Your task to perform on an android device: change the clock display to show seconds Image 0: 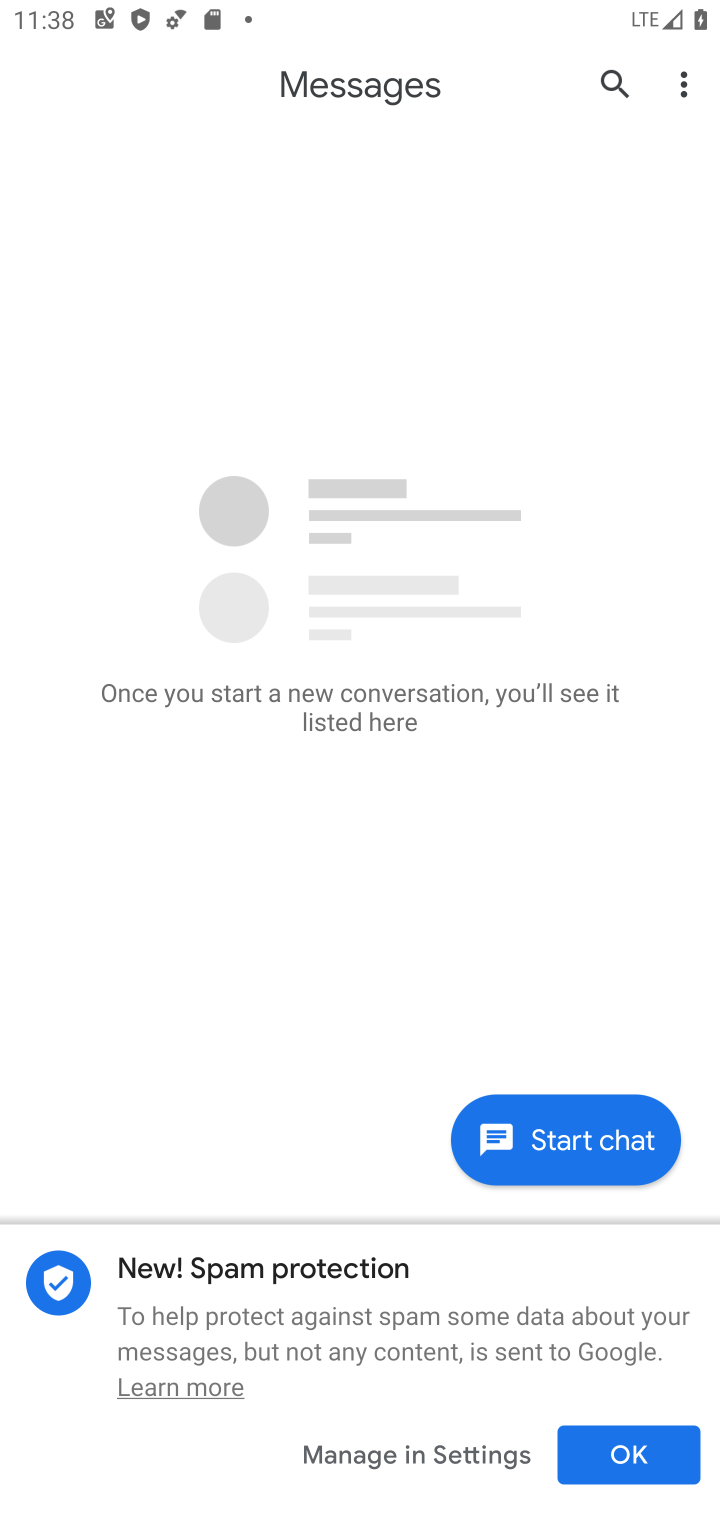
Step 0: press back button
Your task to perform on an android device: change the clock display to show seconds Image 1: 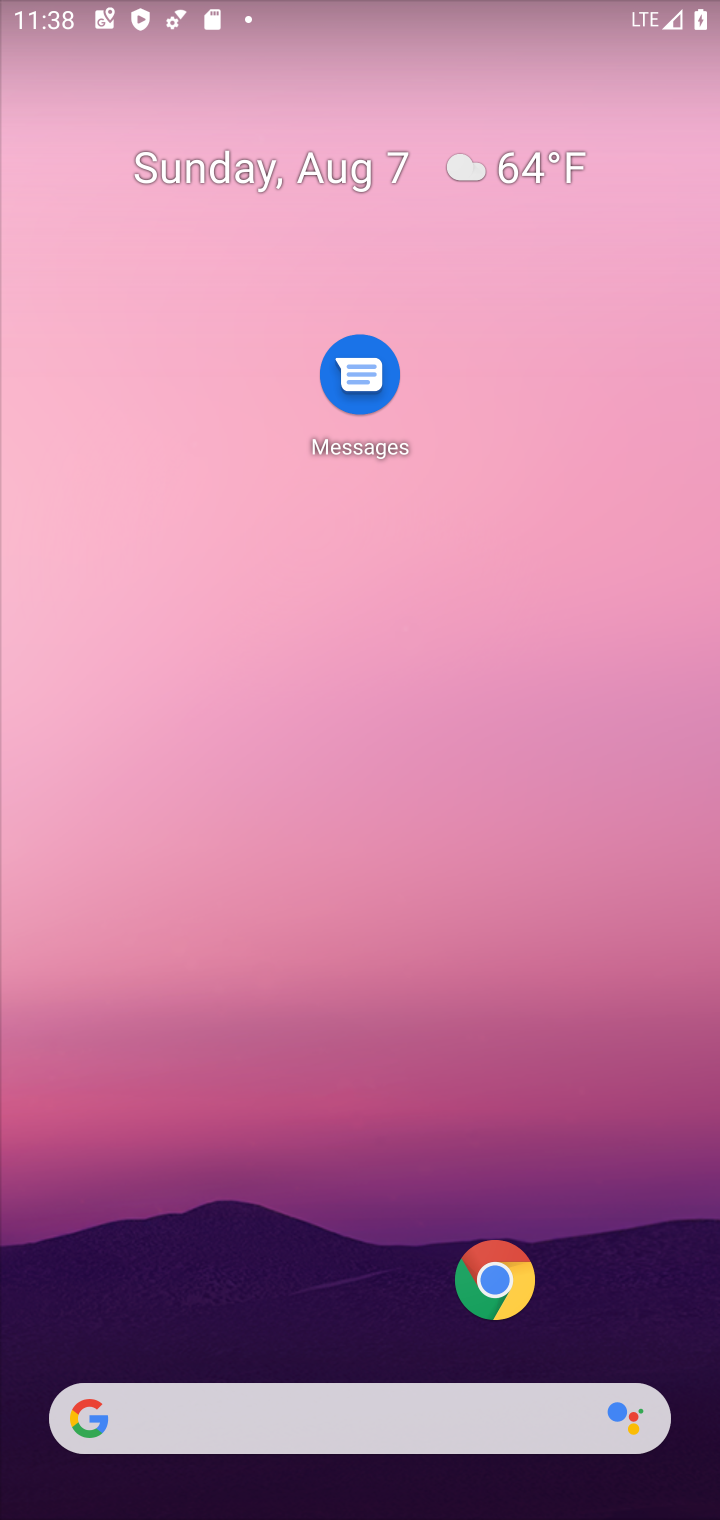
Step 1: drag from (197, 1200) to (273, 304)
Your task to perform on an android device: change the clock display to show seconds Image 2: 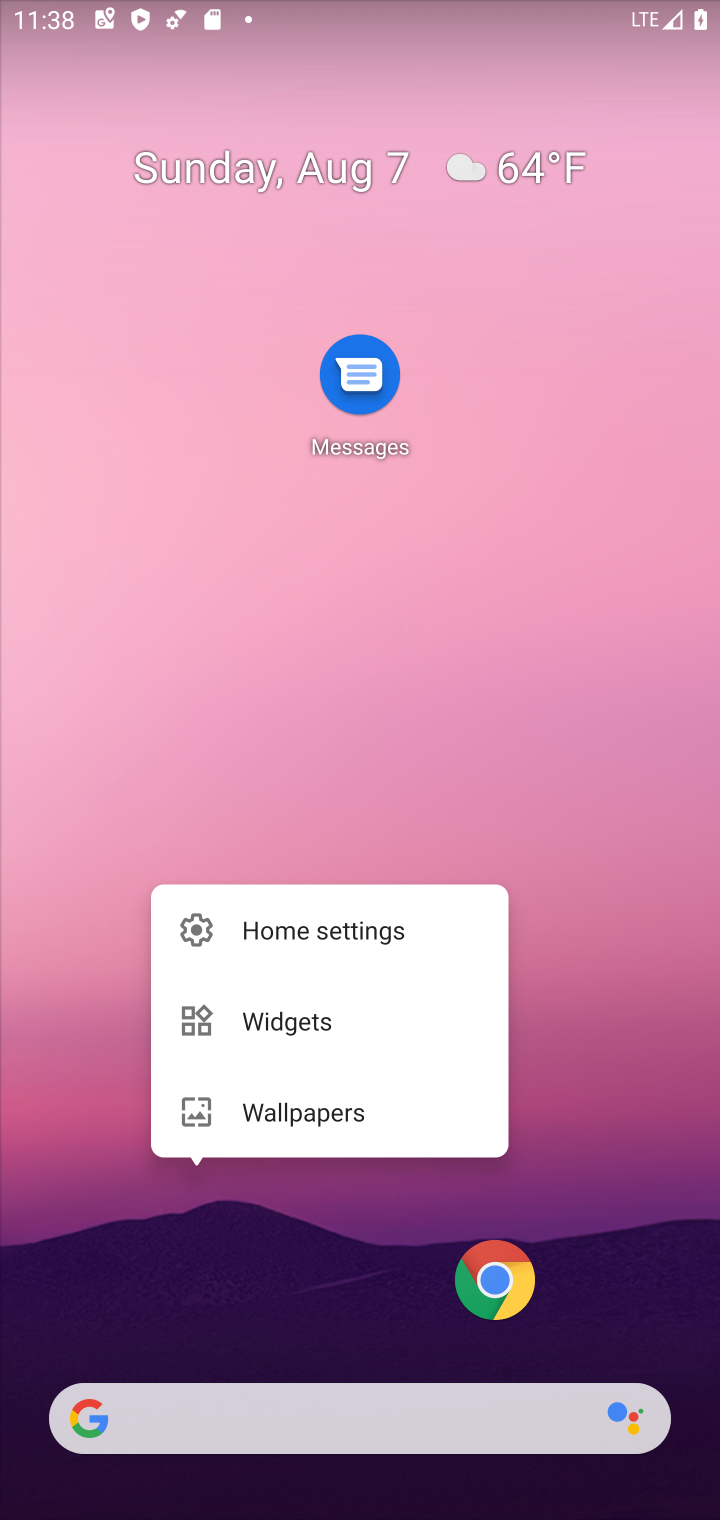
Step 2: drag from (227, 1274) to (462, 29)
Your task to perform on an android device: change the clock display to show seconds Image 3: 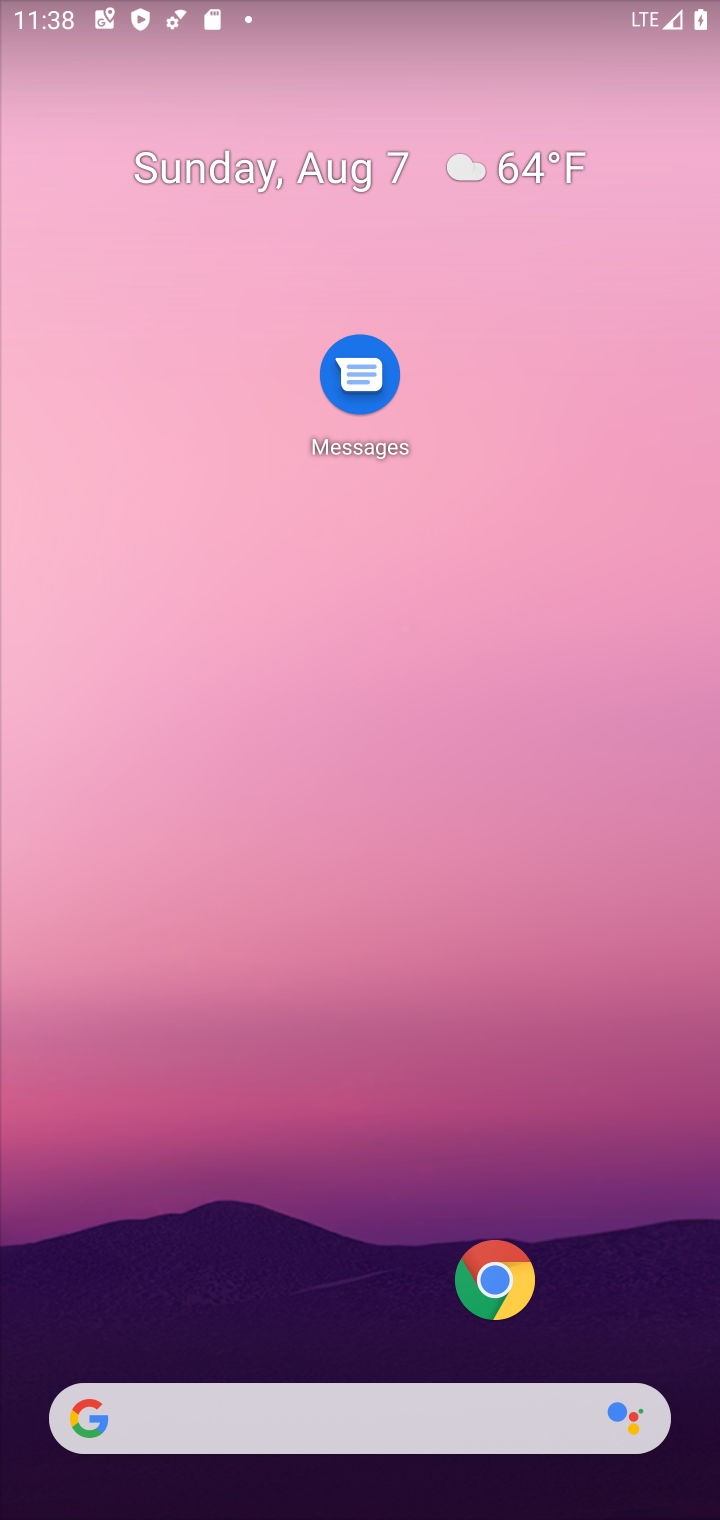
Step 3: drag from (266, 1137) to (529, 37)
Your task to perform on an android device: change the clock display to show seconds Image 4: 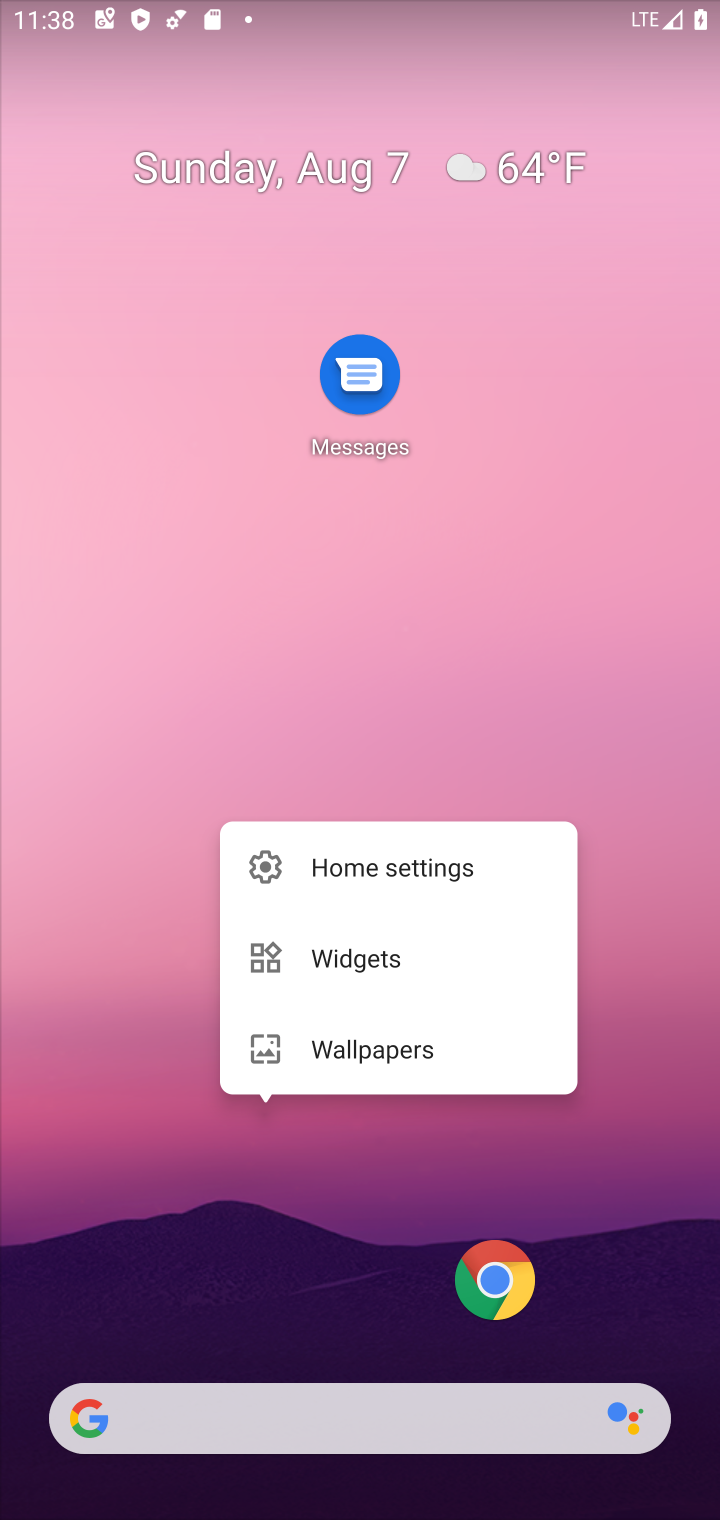
Step 4: click (186, 1257)
Your task to perform on an android device: change the clock display to show seconds Image 5: 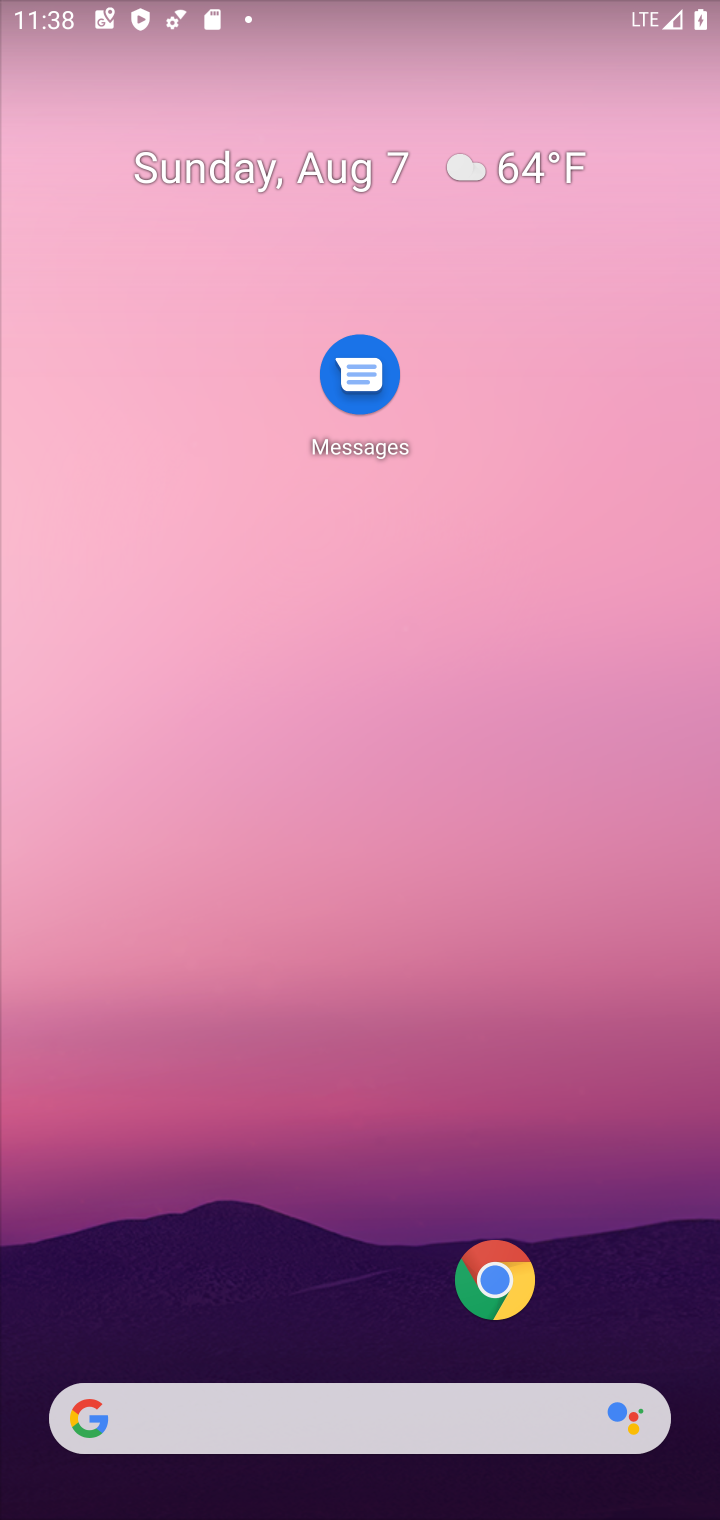
Step 5: drag from (467, 332) to (530, 77)
Your task to perform on an android device: change the clock display to show seconds Image 6: 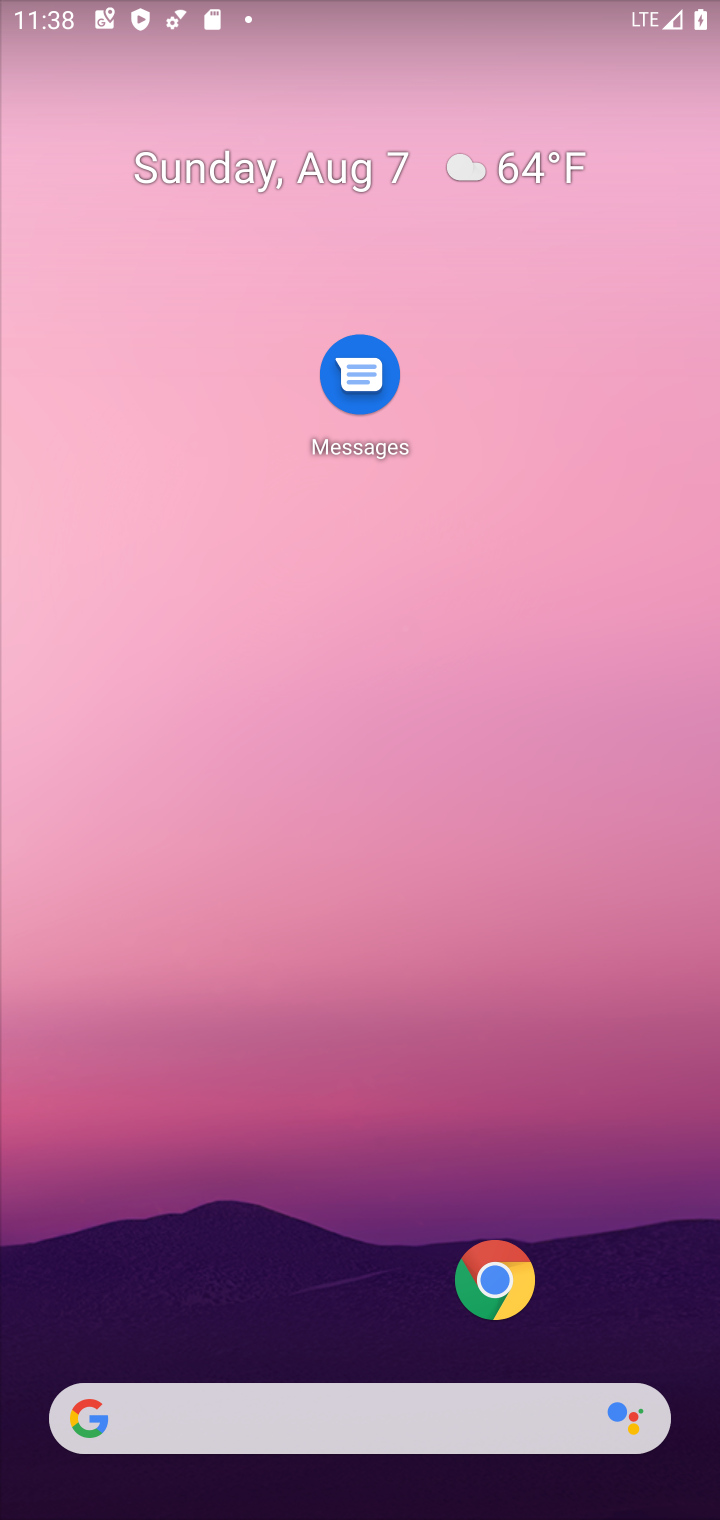
Step 6: drag from (375, 1139) to (536, 9)
Your task to perform on an android device: change the clock display to show seconds Image 7: 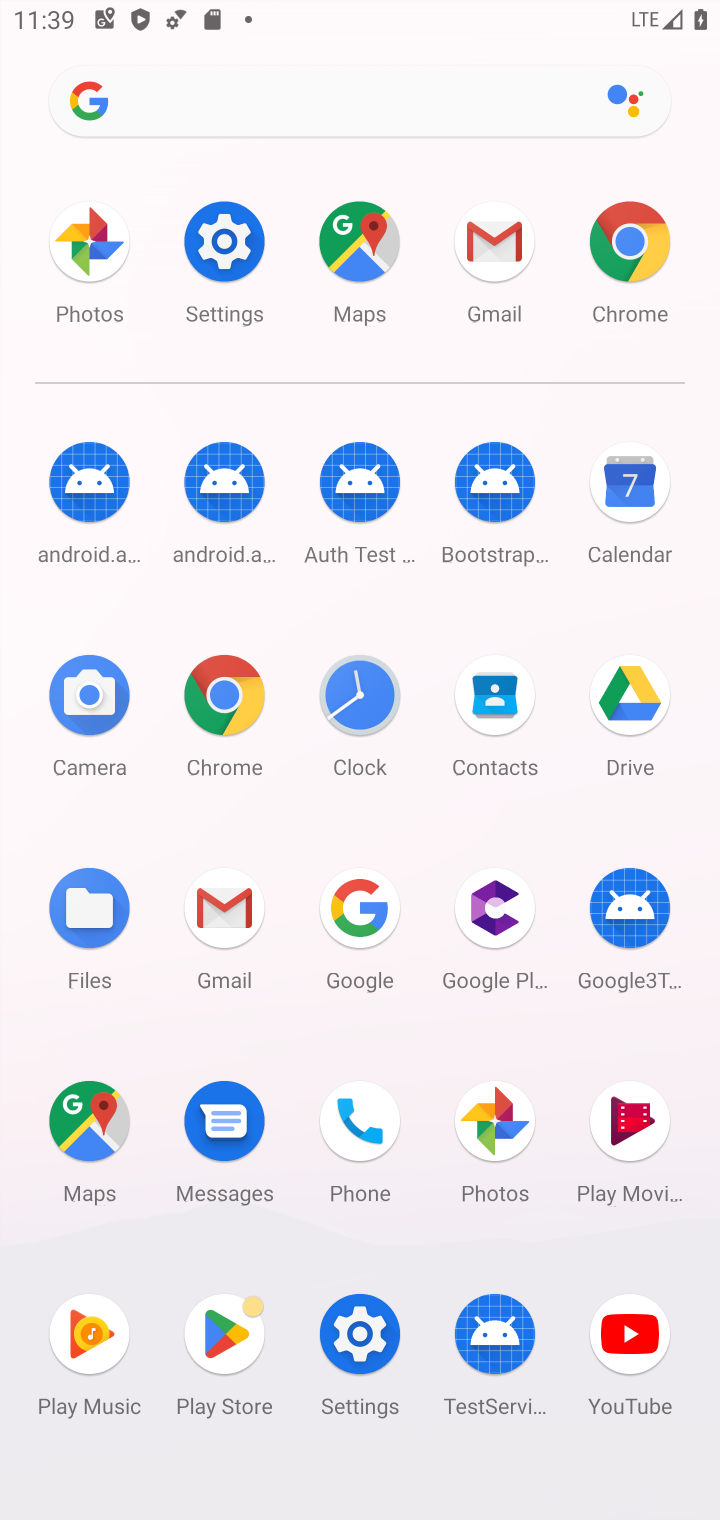
Step 7: click (369, 697)
Your task to perform on an android device: change the clock display to show seconds Image 8: 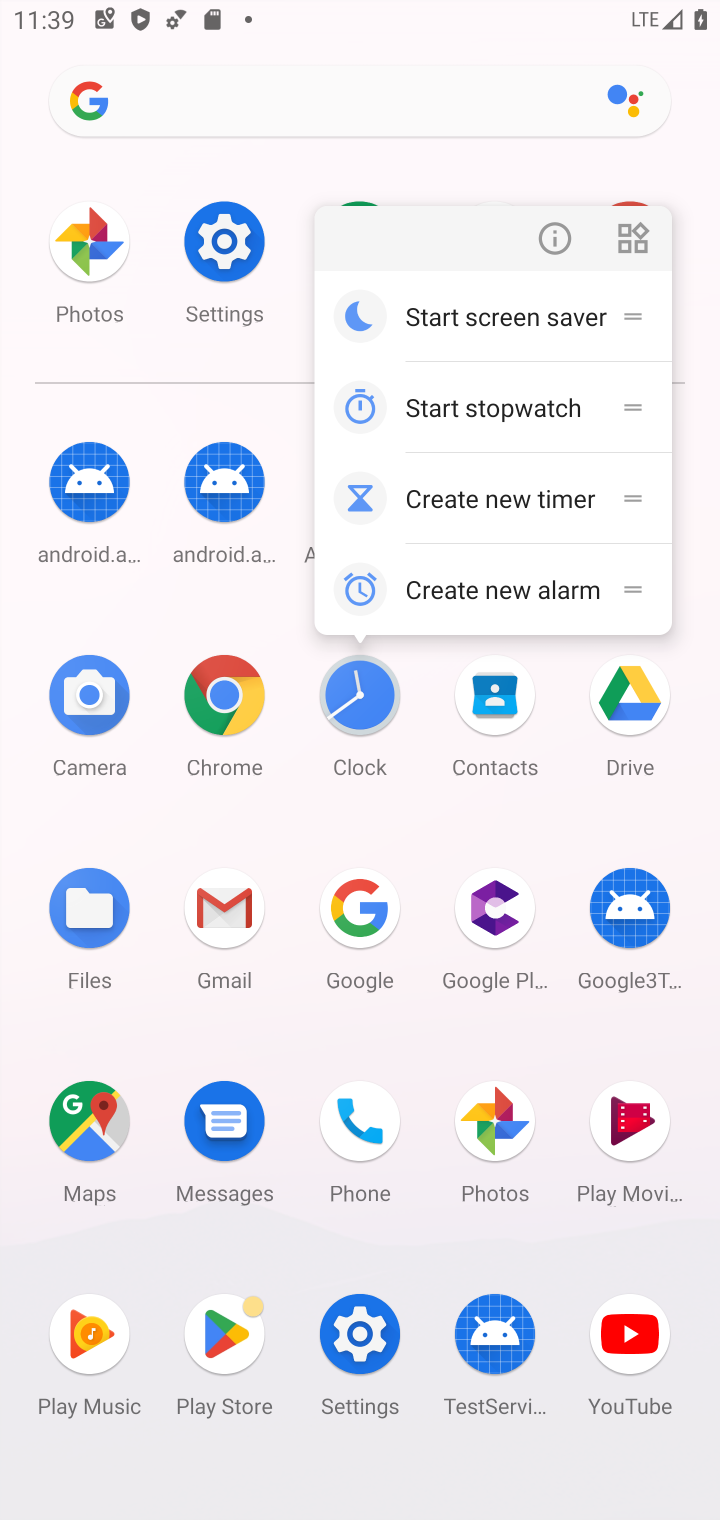
Step 8: click (367, 695)
Your task to perform on an android device: change the clock display to show seconds Image 9: 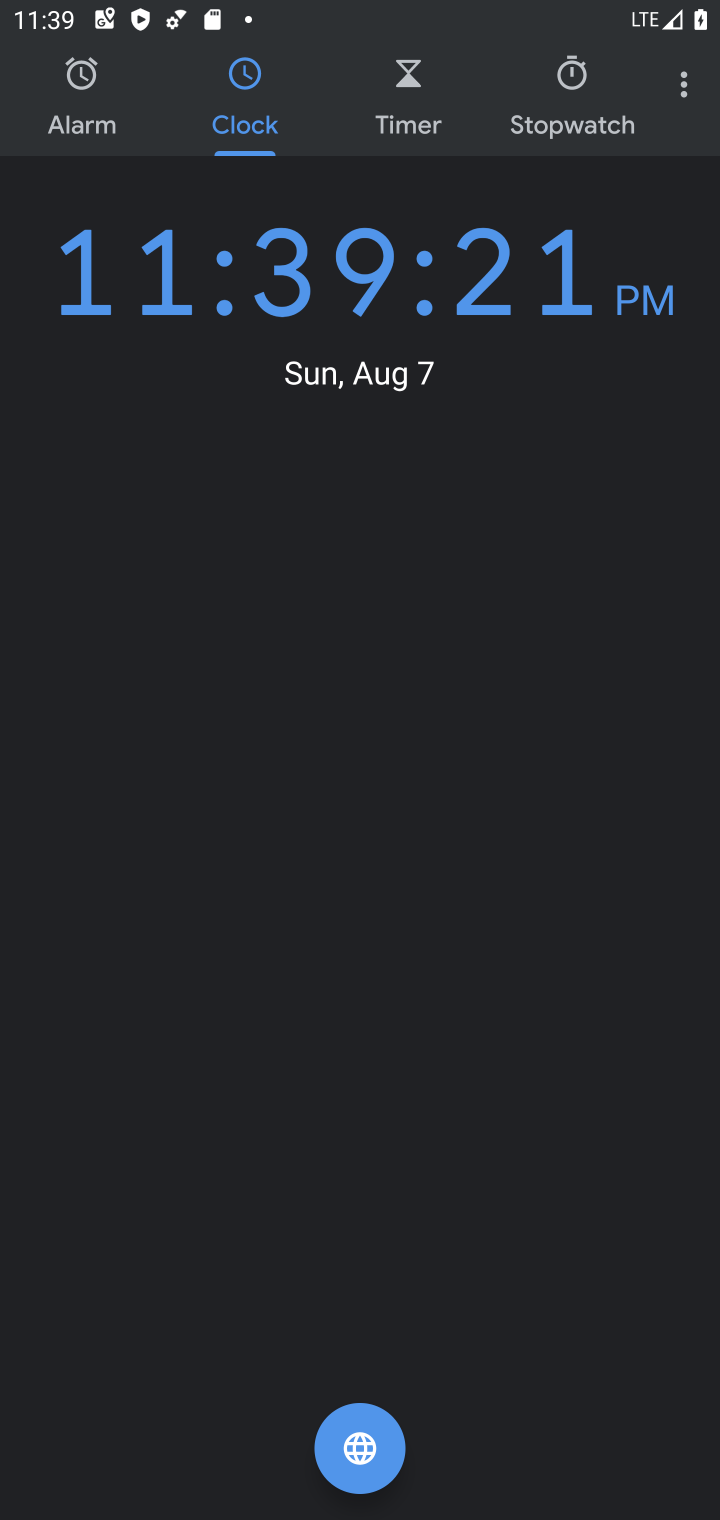
Step 9: click (688, 86)
Your task to perform on an android device: change the clock display to show seconds Image 10: 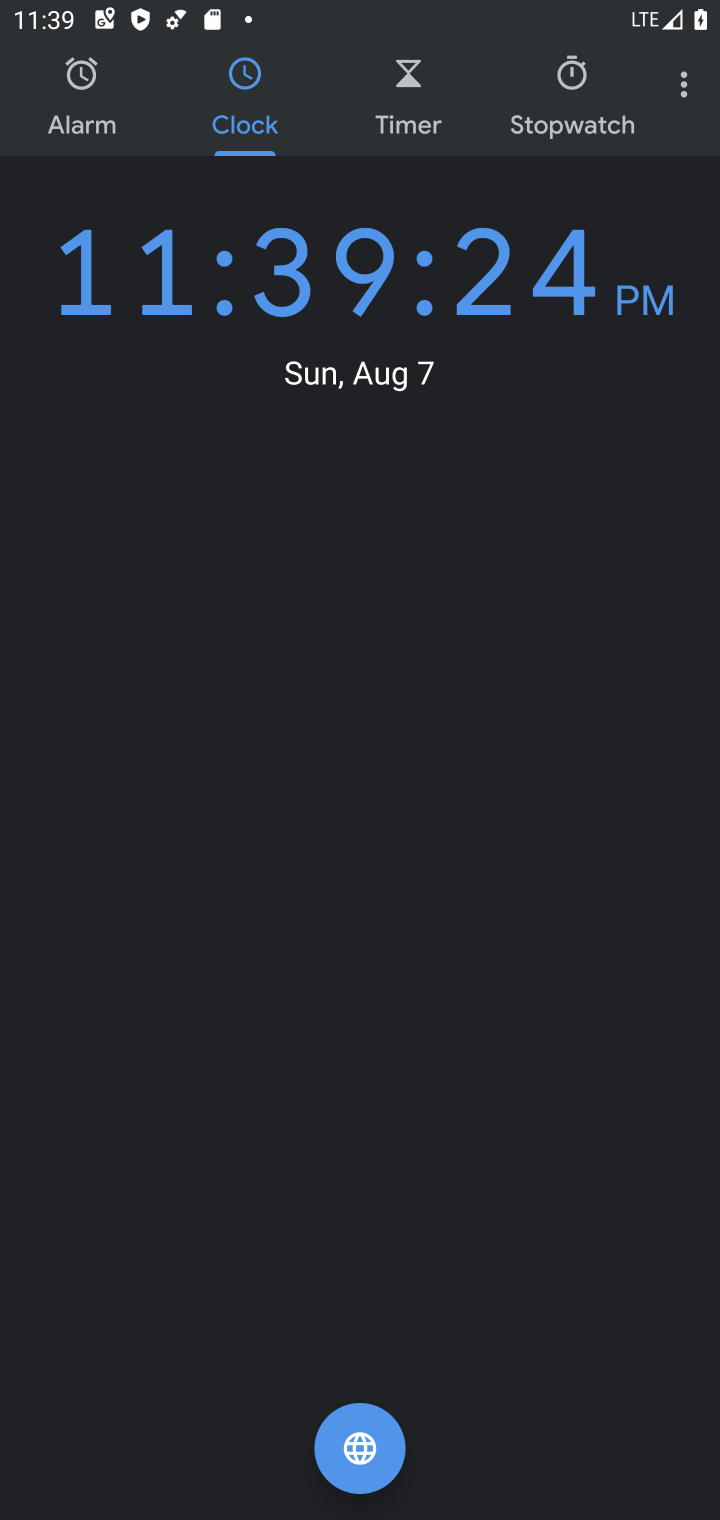
Step 10: click (682, 81)
Your task to perform on an android device: change the clock display to show seconds Image 11: 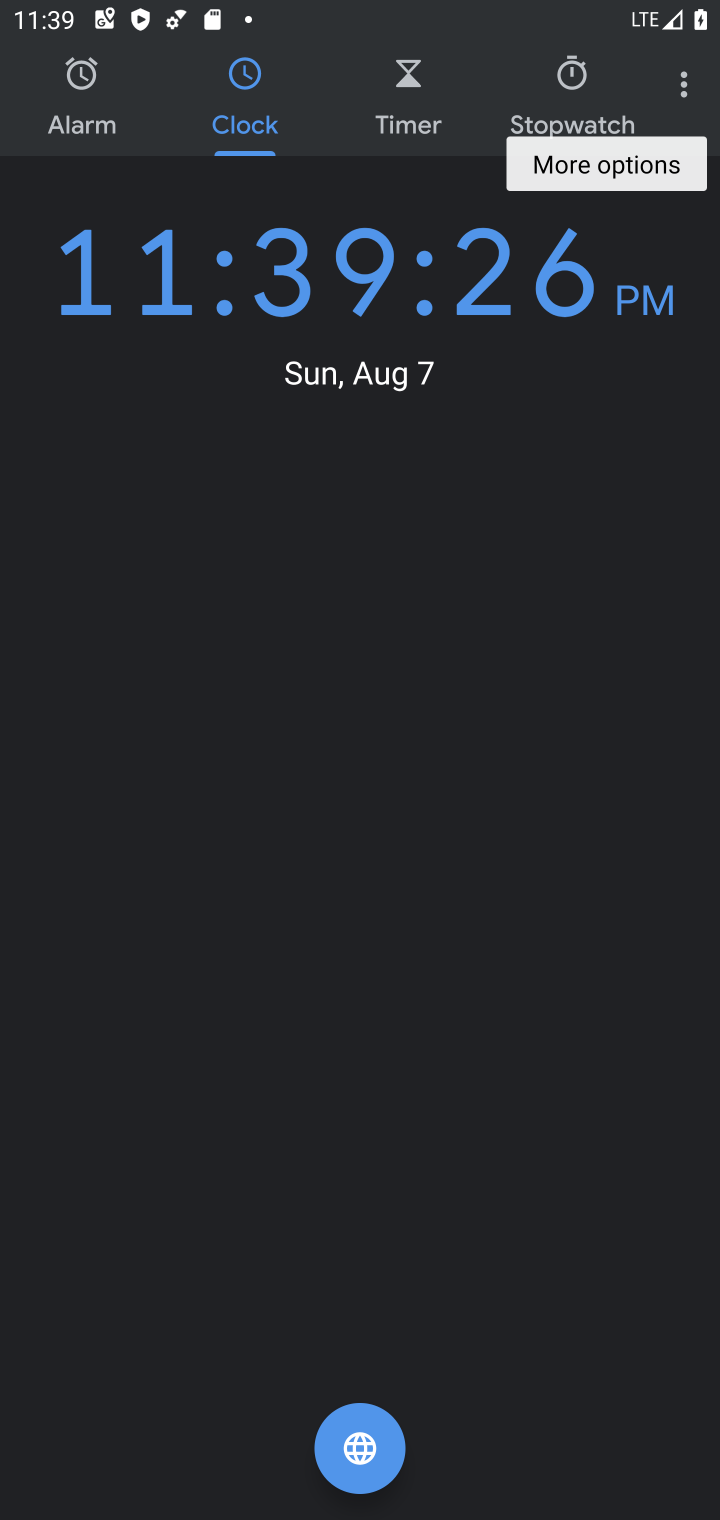
Step 11: click (697, 69)
Your task to perform on an android device: change the clock display to show seconds Image 12: 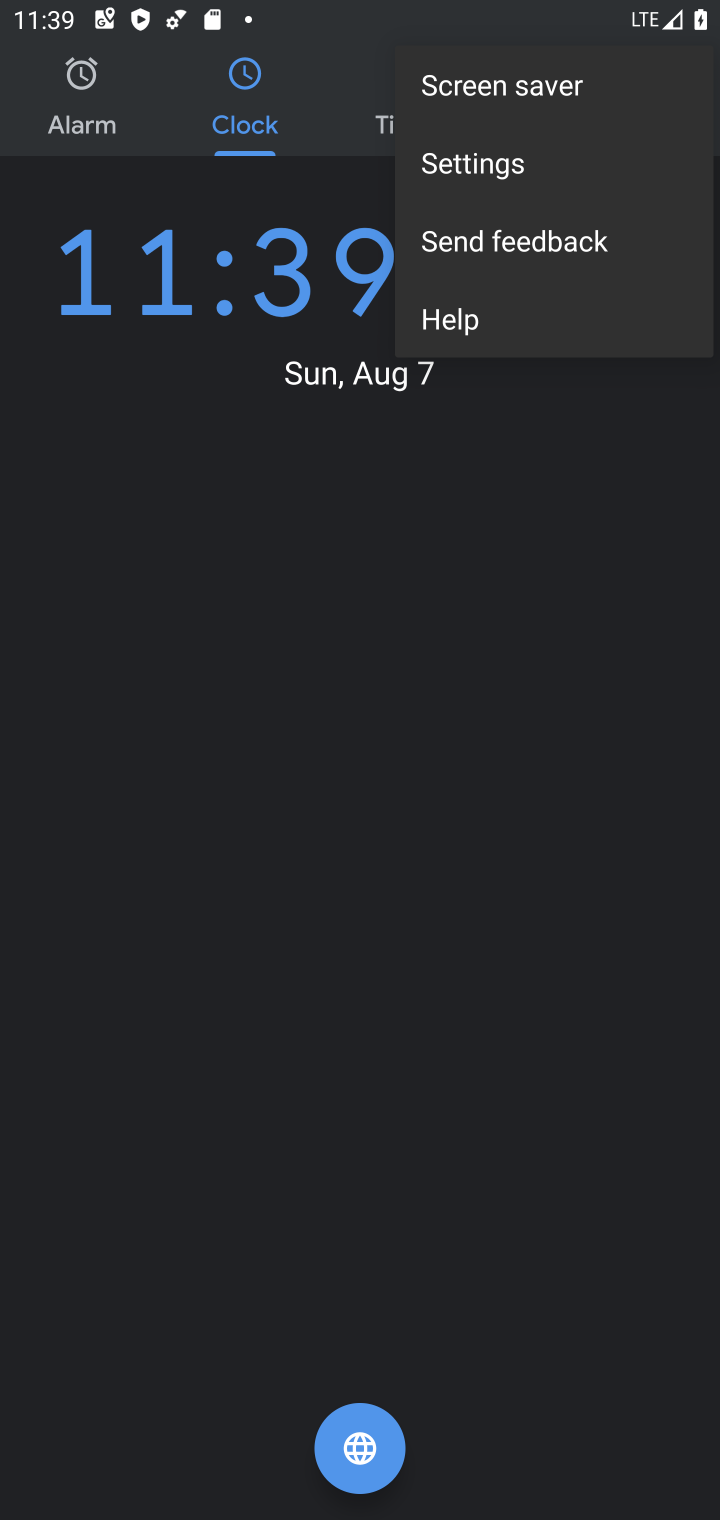
Step 12: click (503, 176)
Your task to perform on an android device: change the clock display to show seconds Image 13: 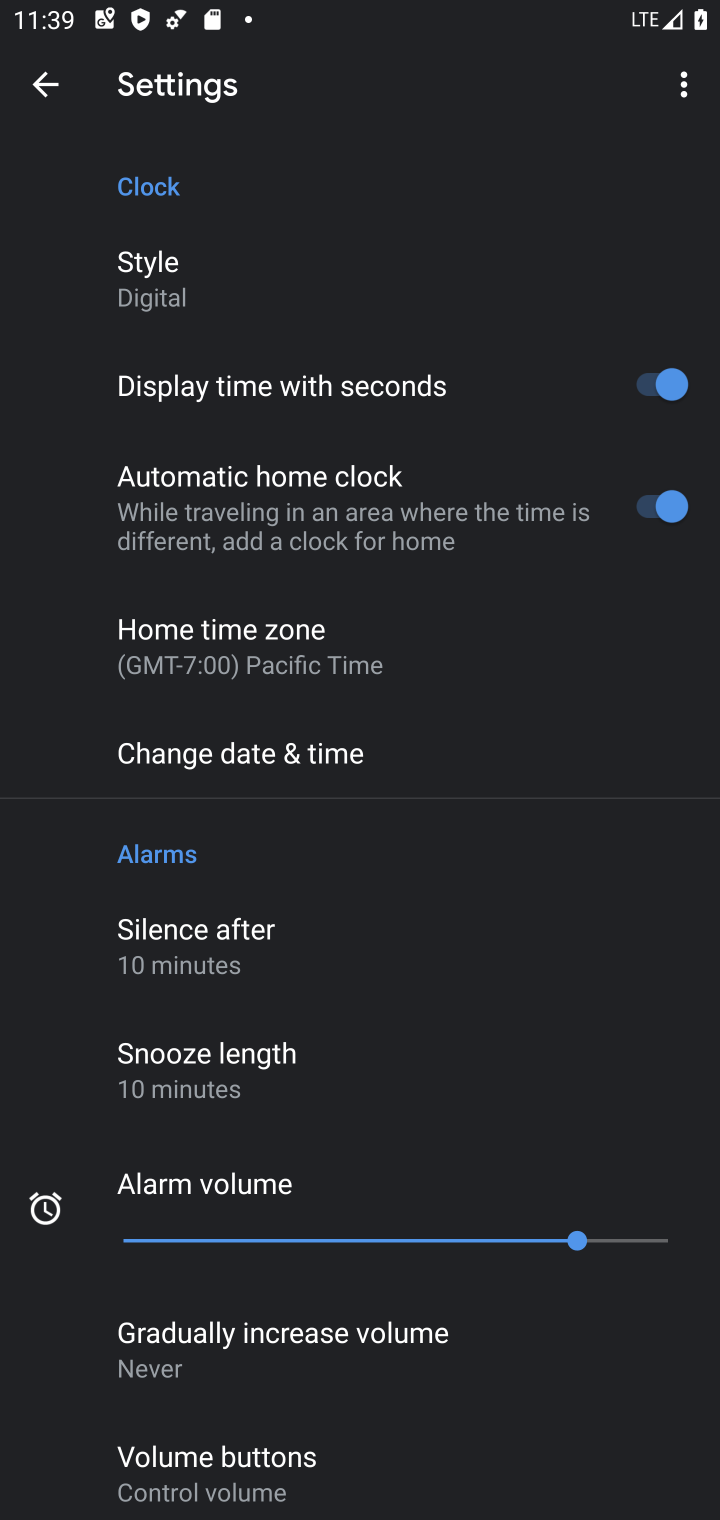
Step 13: drag from (245, 1285) to (435, 1108)
Your task to perform on an android device: change the clock display to show seconds Image 14: 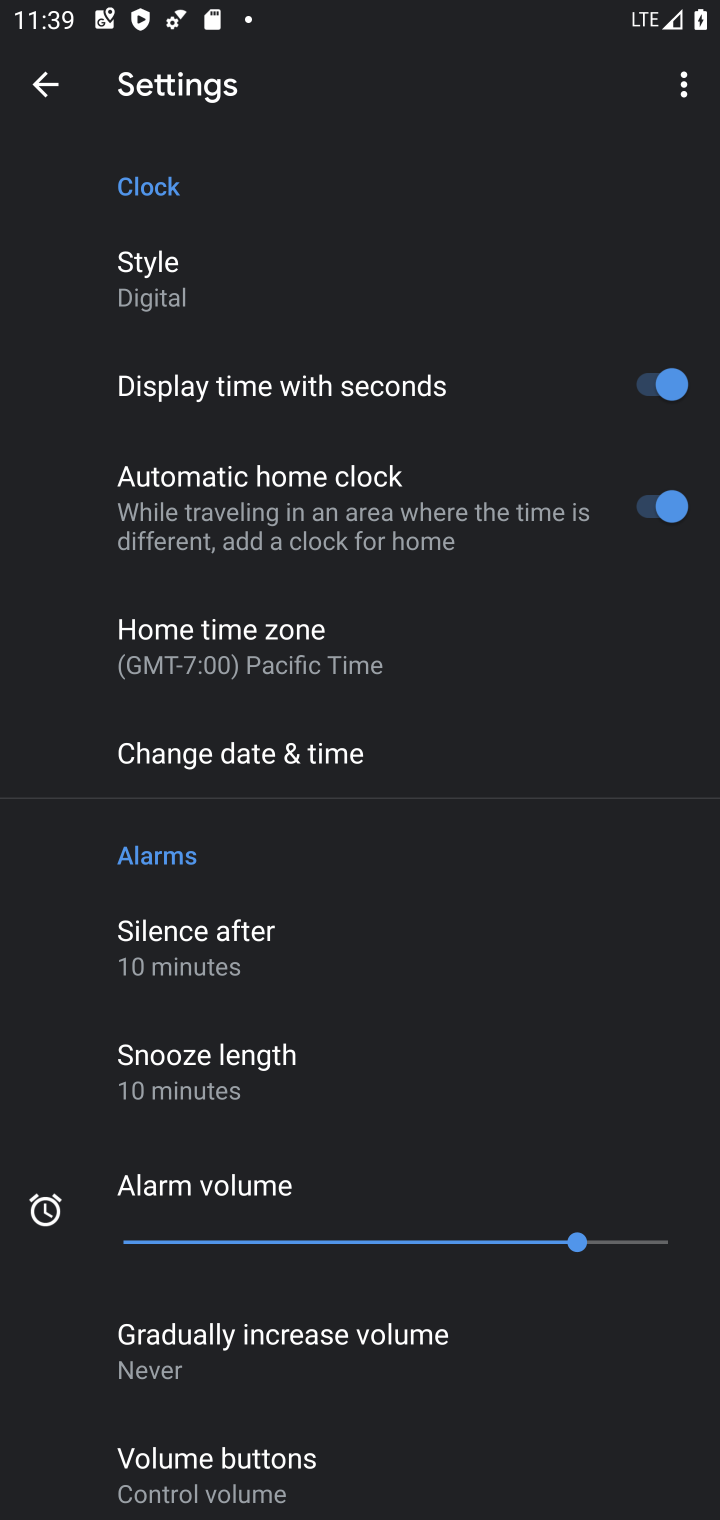
Step 14: click (211, 270)
Your task to perform on an android device: change the clock display to show seconds Image 15: 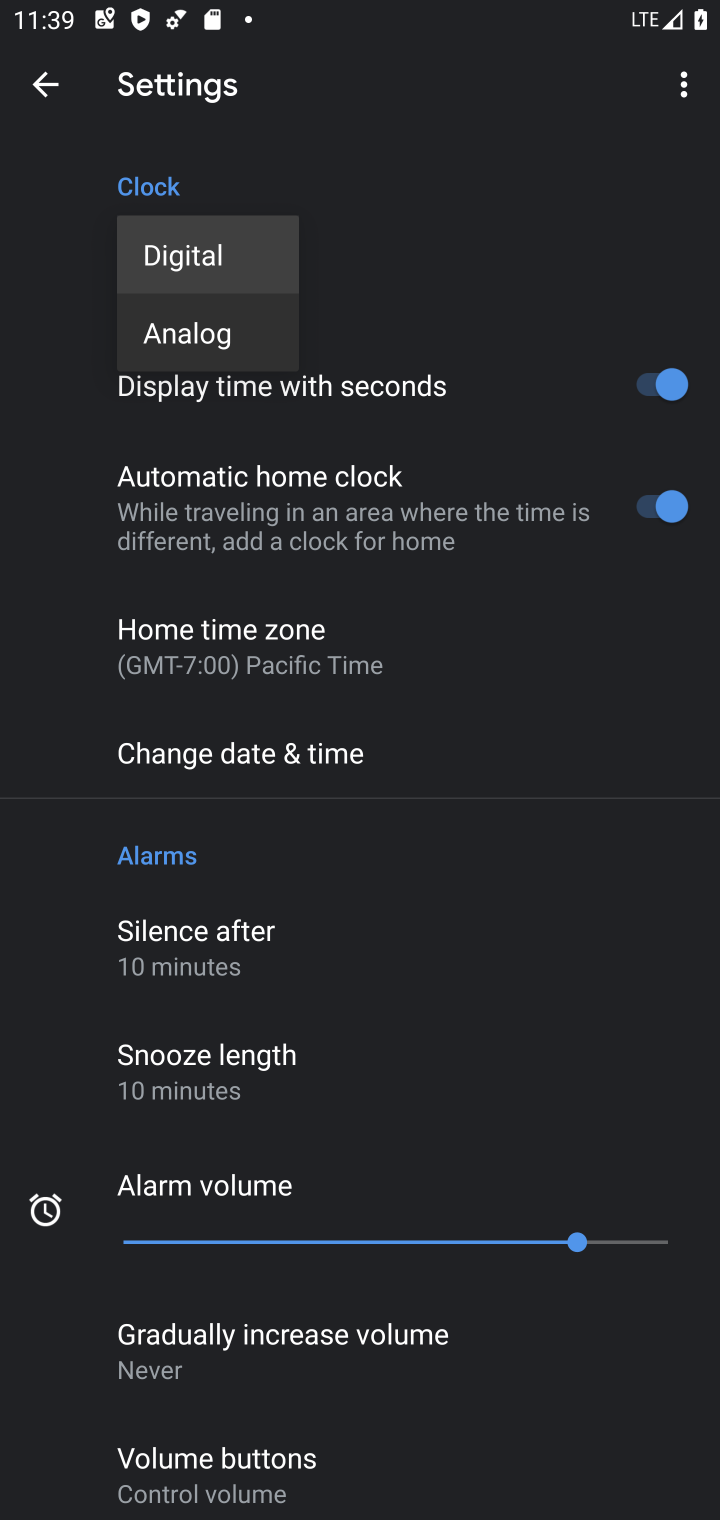
Step 15: task complete